Your task to perform on an android device: refresh tabs in the chrome app Image 0: 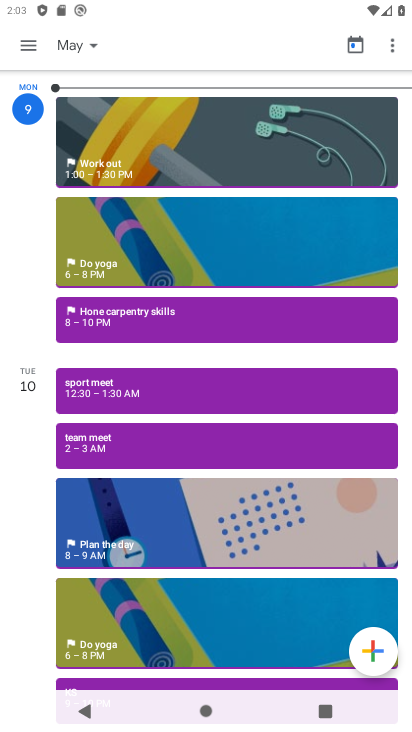
Step 0: press home button
Your task to perform on an android device: refresh tabs in the chrome app Image 1: 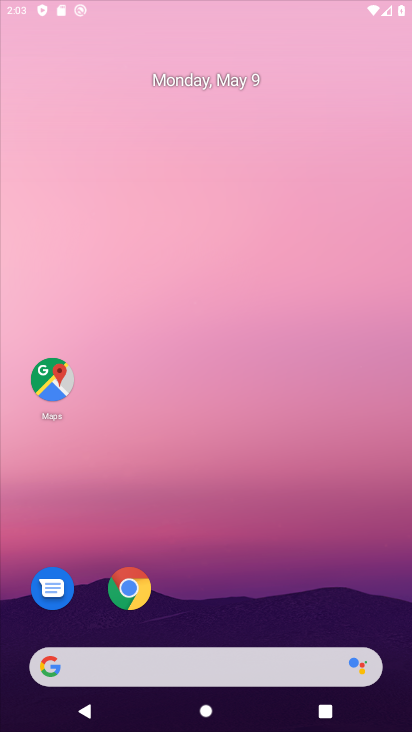
Step 1: drag from (347, 620) to (255, 156)
Your task to perform on an android device: refresh tabs in the chrome app Image 2: 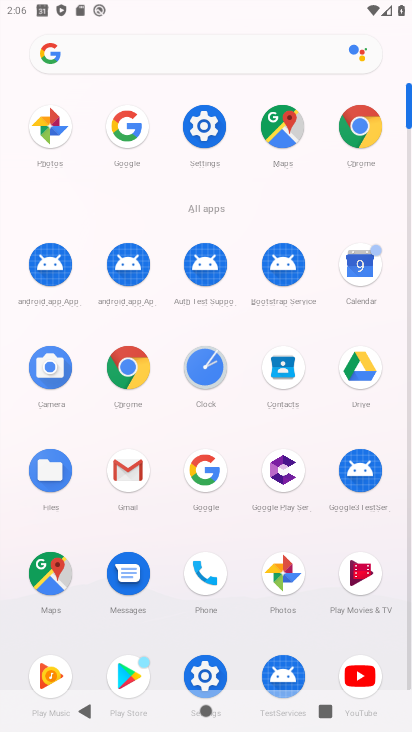
Step 2: click (141, 371)
Your task to perform on an android device: refresh tabs in the chrome app Image 3: 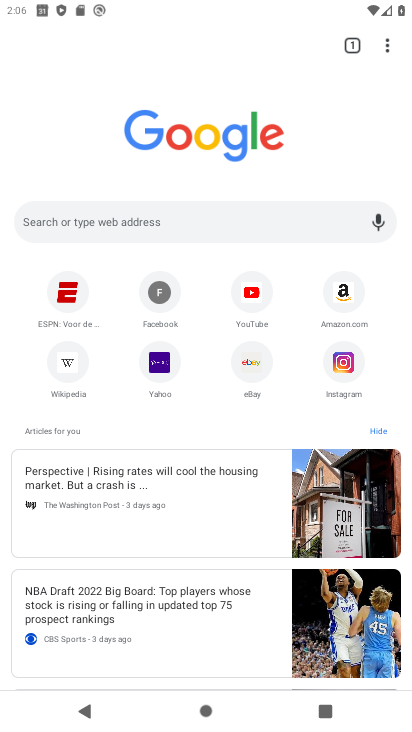
Step 3: click (389, 47)
Your task to perform on an android device: refresh tabs in the chrome app Image 4: 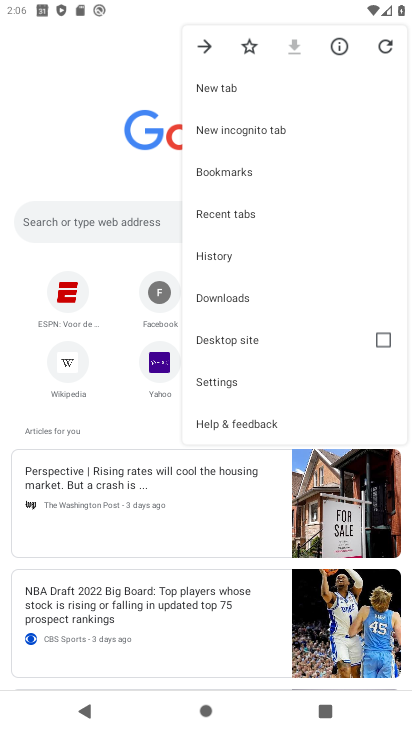
Step 4: click (386, 41)
Your task to perform on an android device: refresh tabs in the chrome app Image 5: 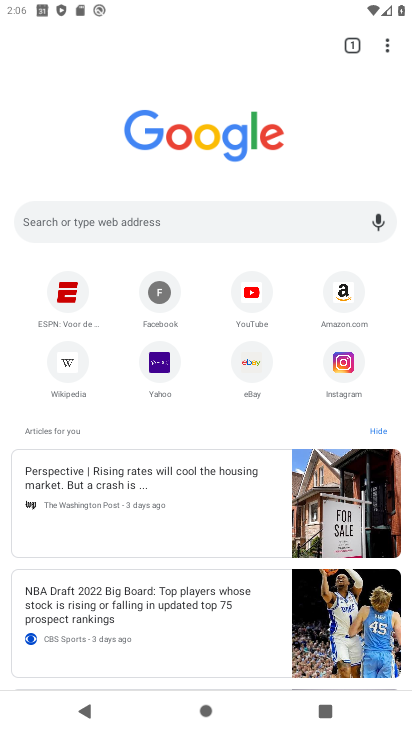
Step 5: task complete